Your task to perform on an android device: manage bookmarks in the chrome app Image 0: 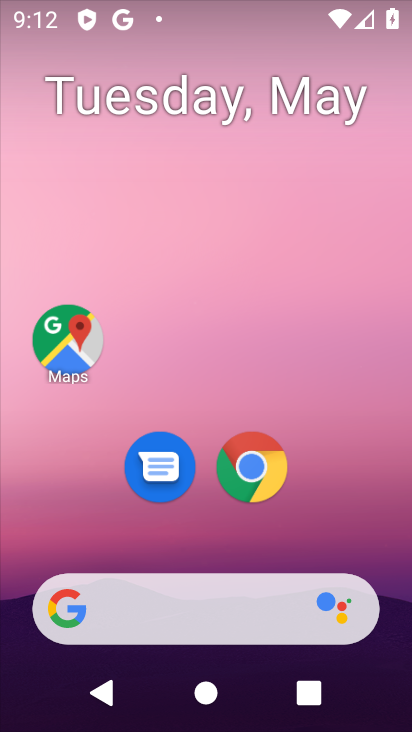
Step 0: drag from (364, 559) to (226, 4)
Your task to perform on an android device: manage bookmarks in the chrome app Image 1: 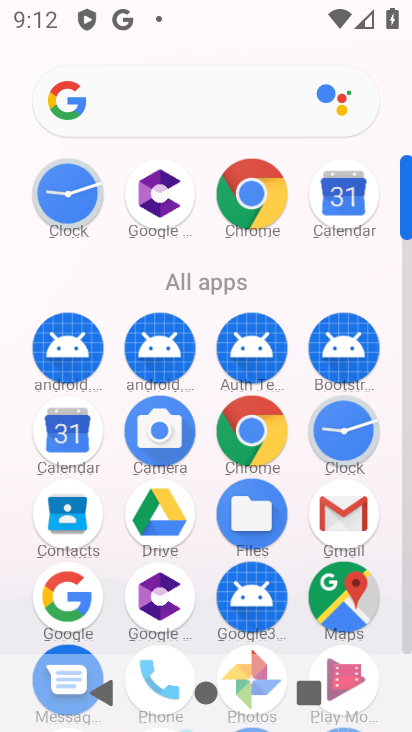
Step 1: drag from (13, 503) to (14, 291)
Your task to perform on an android device: manage bookmarks in the chrome app Image 2: 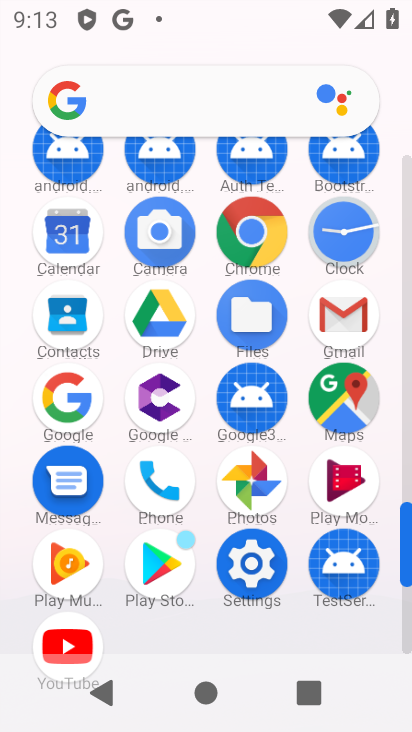
Step 2: click (251, 226)
Your task to perform on an android device: manage bookmarks in the chrome app Image 3: 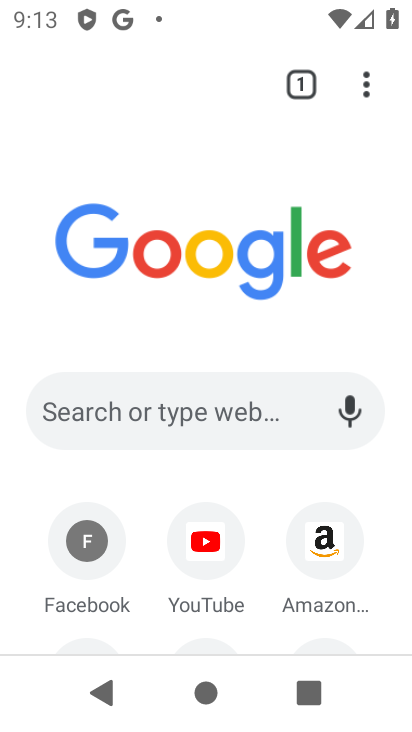
Step 3: drag from (367, 82) to (110, 158)
Your task to perform on an android device: manage bookmarks in the chrome app Image 4: 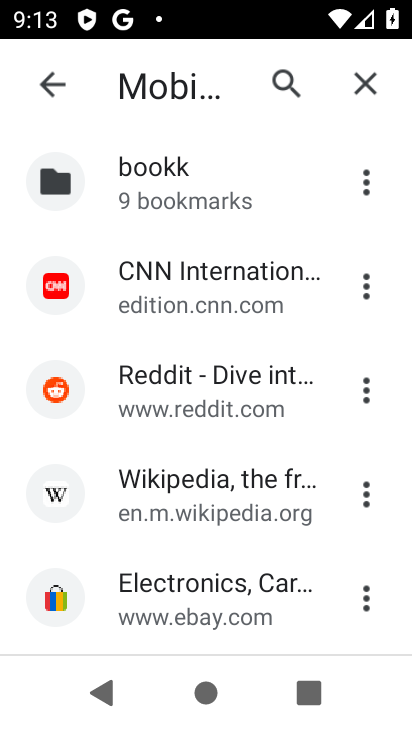
Step 4: click (361, 173)
Your task to perform on an android device: manage bookmarks in the chrome app Image 5: 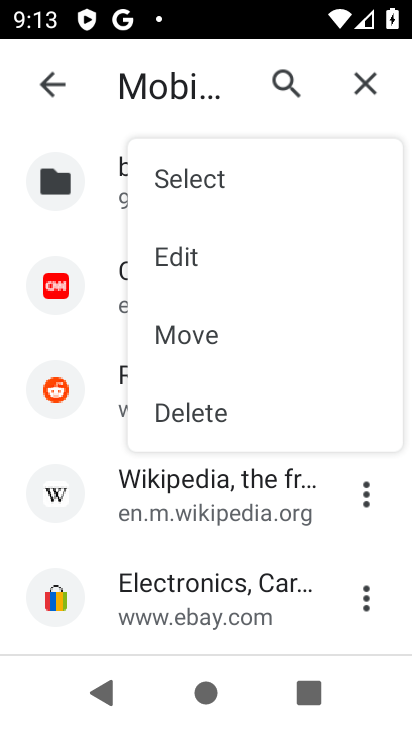
Step 5: click (210, 410)
Your task to perform on an android device: manage bookmarks in the chrome app Image 6: 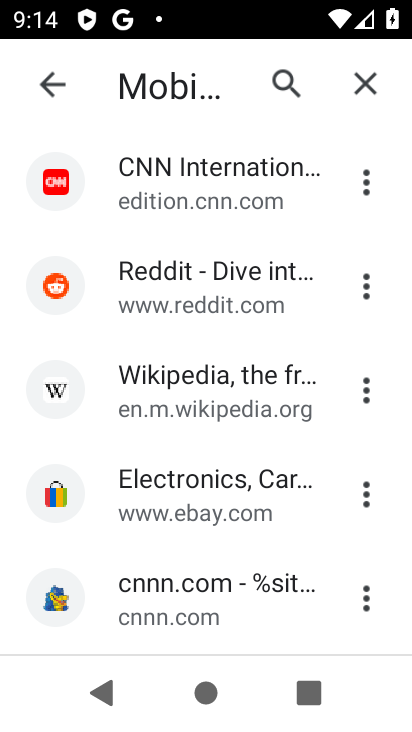
Step 6: task complete